Your task to perform on an android device: turn on airplane mode Image 0: 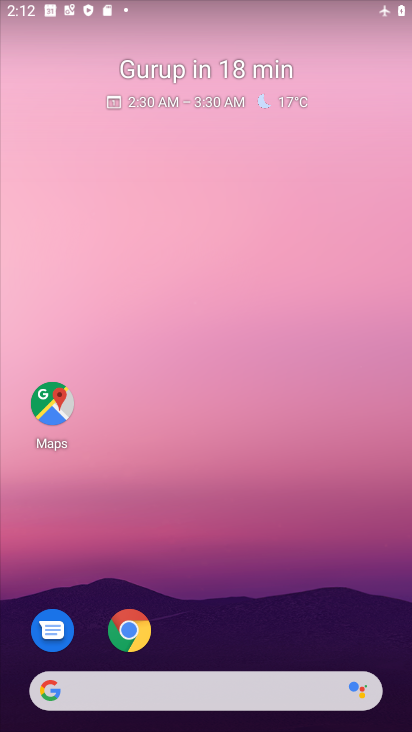
Step 0: drag from (213, 602) to (262, 0)
Your task to perform on an android device: turn on airplane mode Image 1: 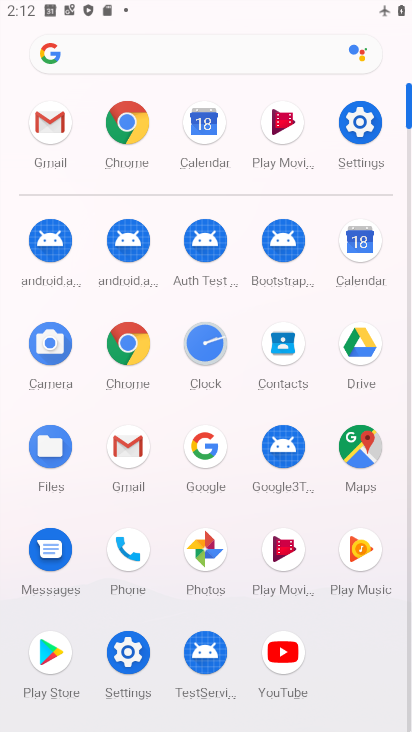
Step 1: click (354, 117)
Your task to perform on an android device: turn on airplane mode Image 2: 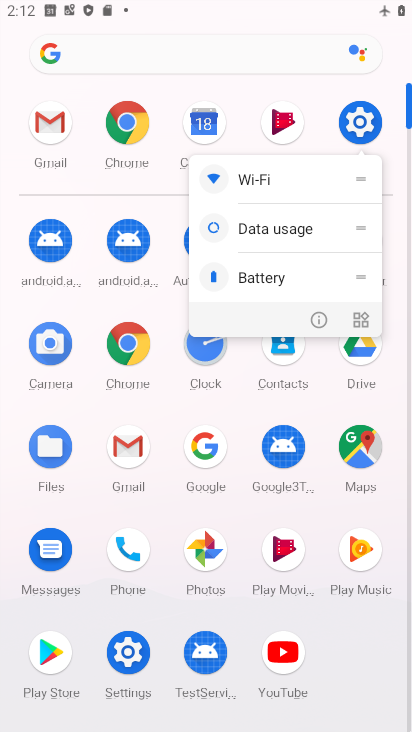
Step 2: click (354, 117)
Your task to perform on an android device: turn on airplane mode Image 3: 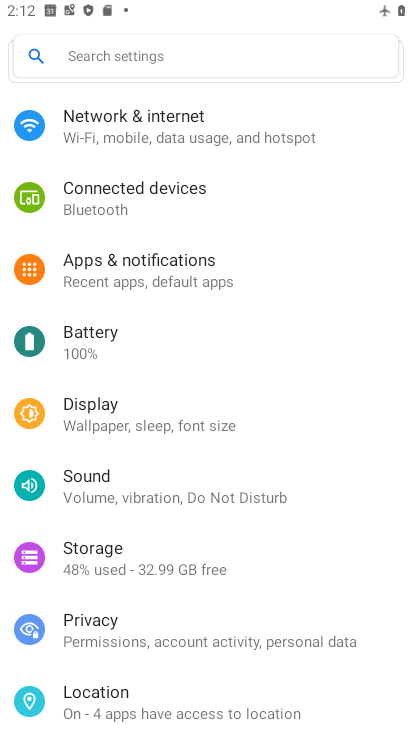
Step 3: click (271, 132)
Your task to perform on an android device: turn on airplane mode Image 4: 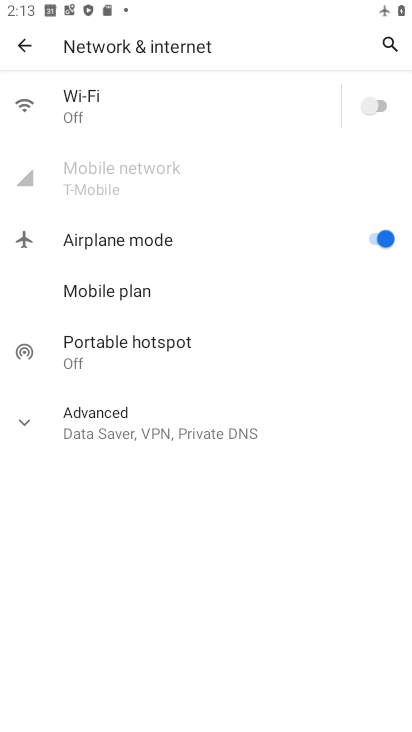
Step 4: task complete